Your task to perform on an android device: Search for usb-c to usb-a on target, select the first entry, and add it to the cart. Image 0: 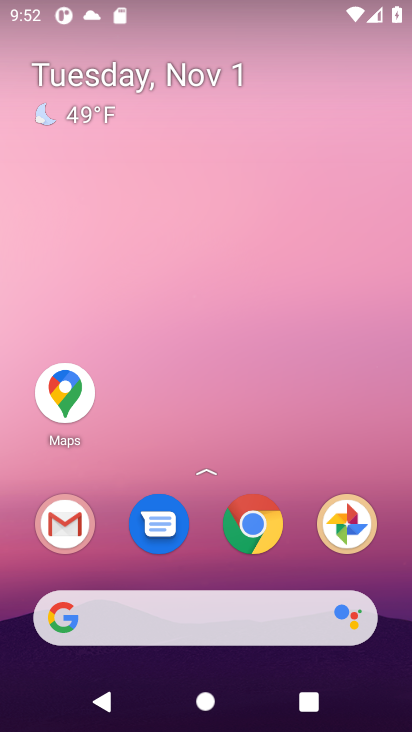
Step 0: press home button
Your task to perform on an android device: Search for usb-c to usb-a on target, select the first entry, and add it to the cart. Image 1: 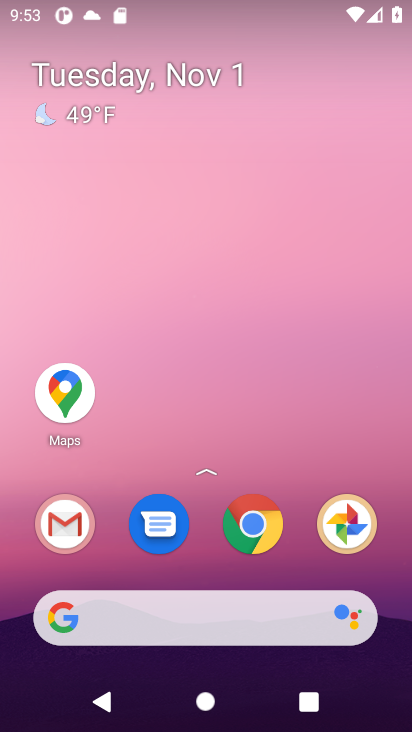
Step 1: click (82, 616)
Your task to perform on an android device: Search for usb-c to usb-a on target, select the first entry, and add it to the cart. Image 2: 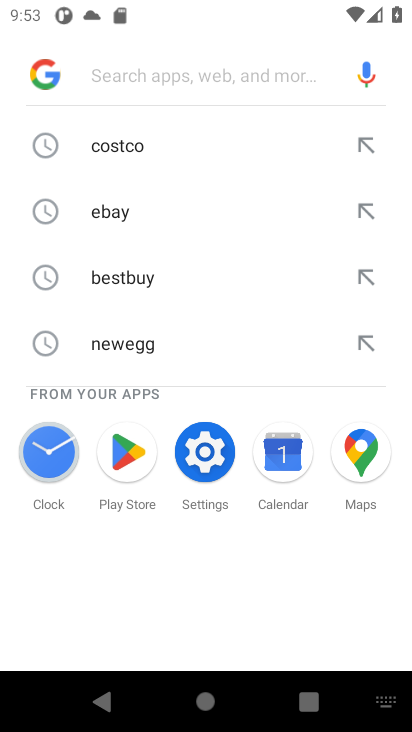
Step 2: type "target"
Your task to perform on an android device: Search for usb-c to usb-a on target, select the first entry, and add it to the cart. Image 3: 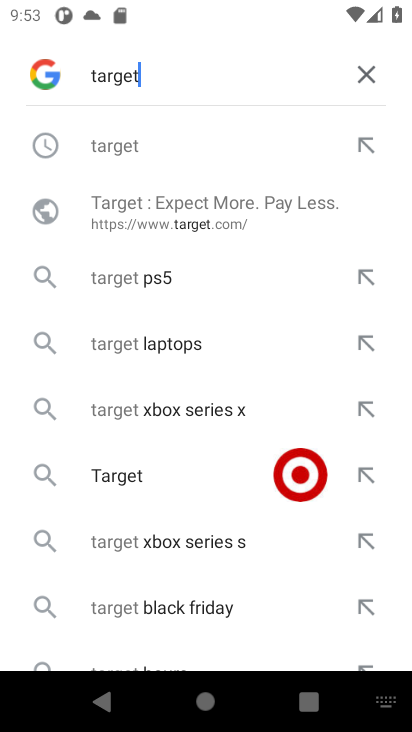
Step 3: press enter
Your task to perform on an android device: Search for usb-c to usb-a on target, select the first entry, and add it to the cart. Image 4: 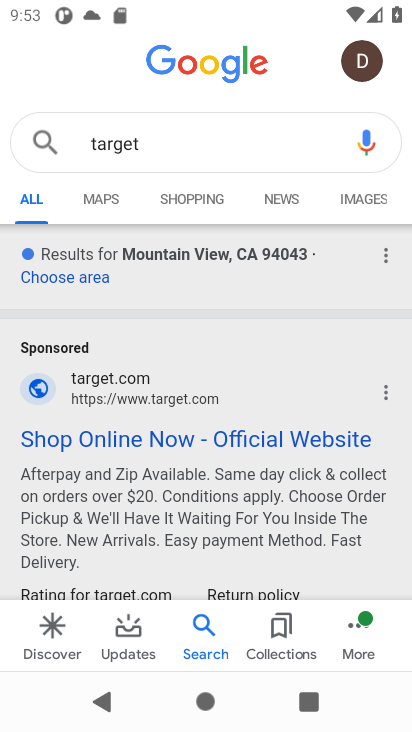
Step 4: click (106, 443)
Your task to perform on an android device: Search for usb-c to usb-a on target, select the first entry, and add it to the cart. Image 5: 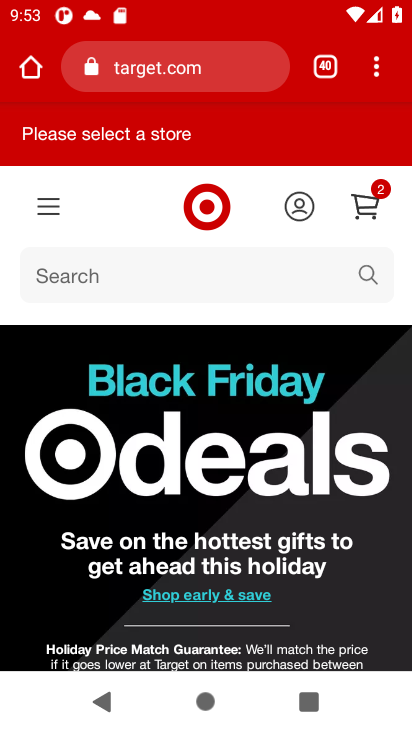
Step 5: click (121, 266)
Your task to perform on an android device: Search for usb-c to usb-a on target, select the first entry, and add it to the cart. Image 6: 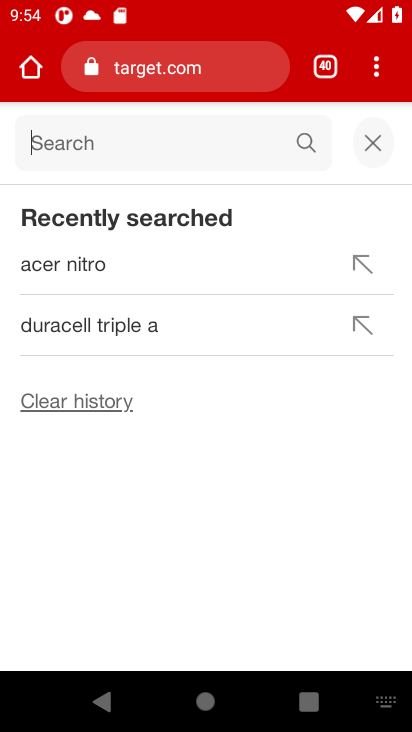
Step 6: type "usb-c to usb-a "
Your task to perform on an android device: Search for usb-c to usb-a on target, select the first entry, and add it to the cart. Image 7: 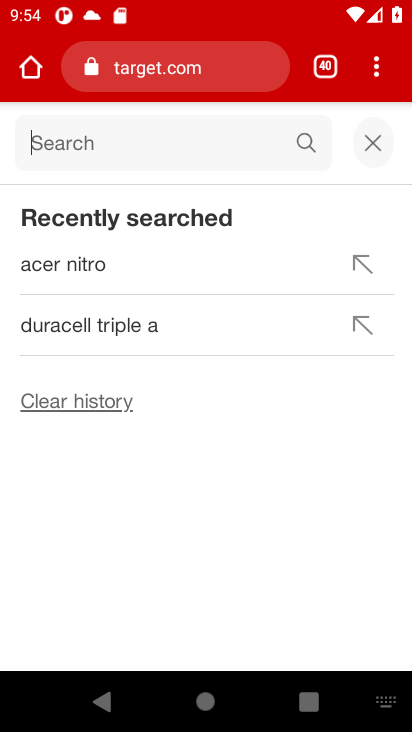
Step 7: press enter
Your task to perform on an android device: Search for usb-c to usb-a on target, select the first entry, and add it to the cart. Image 8: 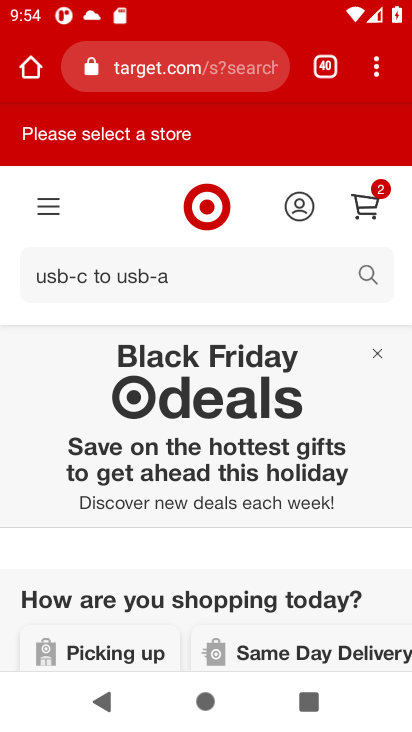
Step 8: drag from (236, 538) to (233, 328)
Your task to perform on an android device: Search for usb-c to usb-a on target, select the first entry, and add it to the cart. Image 9: 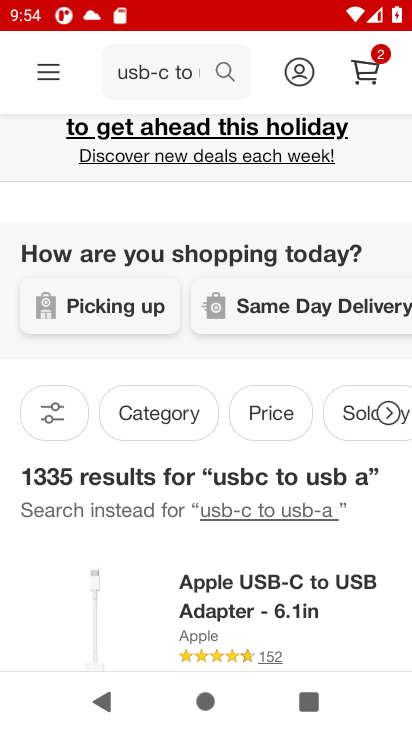
Step 9: drag from (202, 525) to (202, 302)
Your task to perform on an android device: Search for usb-c to usb-a on target, select the first entry, and add it to the cart. Image 10: 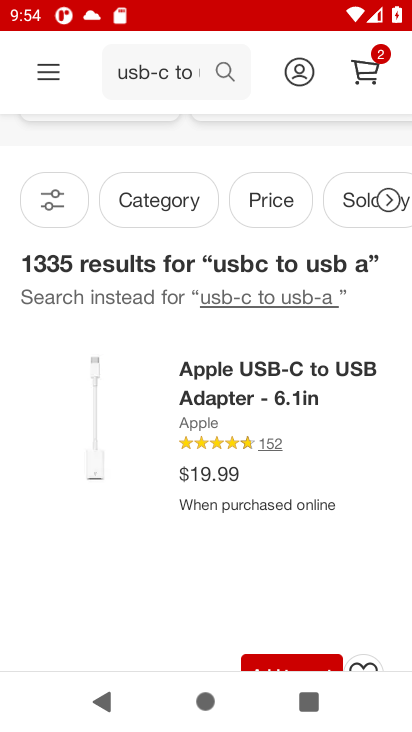
Step 10: drag from (204, 581) to (221, 303)
Your task to perform on an android device: Search for usb-c to usb-a on target, select the first entry, and add it to the cart. Image 11: 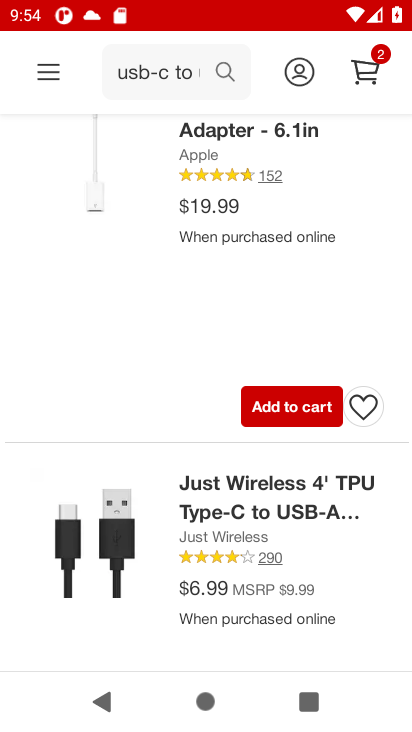
Step 11: drag from (188, 509) to (187, 269)
Your task to perform on an android device: Search for usb-c to usb-a on target, select the first entry, and add it to the cart. Image 12: 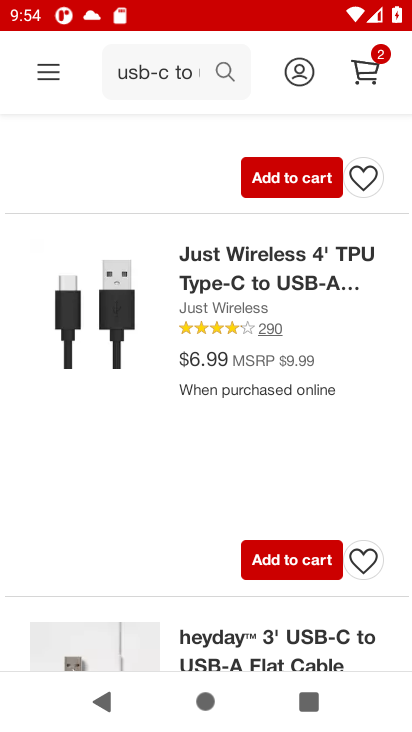
Step 12: drag from (152, 523) to (152, 308)
Your task to perform on an android device: Search for usb-c to usb-a on target, select the first entry, and add it to the cart. Image 13: 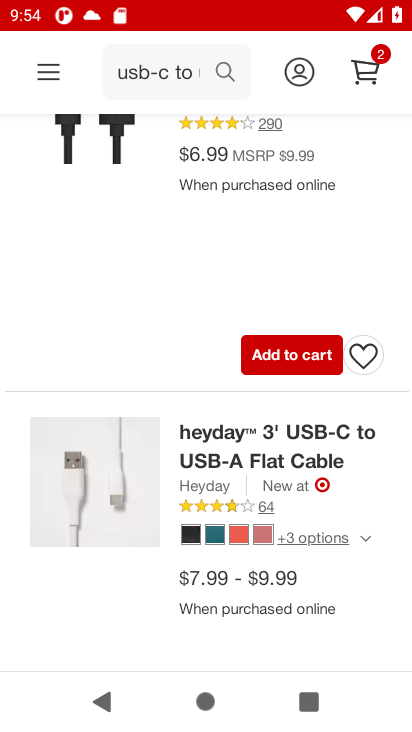
Step 13: drag from (148, 458) to (155, 244)
Your task to perform on an android device: Search for usb-c to usb-a on target, select the first entry, and add it to the cart. Image 14: 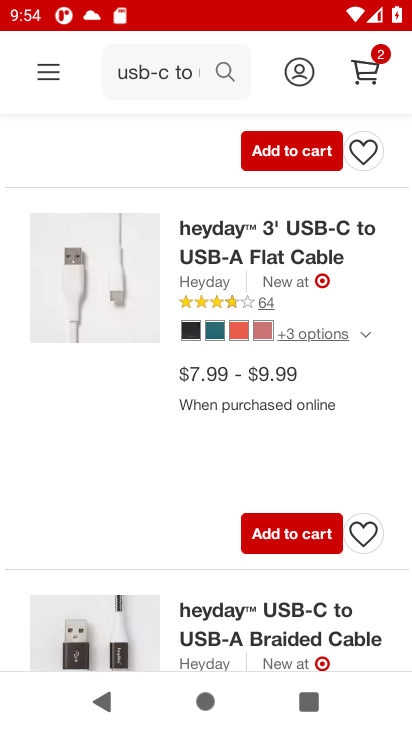
Step 14: click (296, 537)
Your task to perform on an android device: Search for usb-c to usb-a on target, select the first entry, and add it to the cart. Image 15: 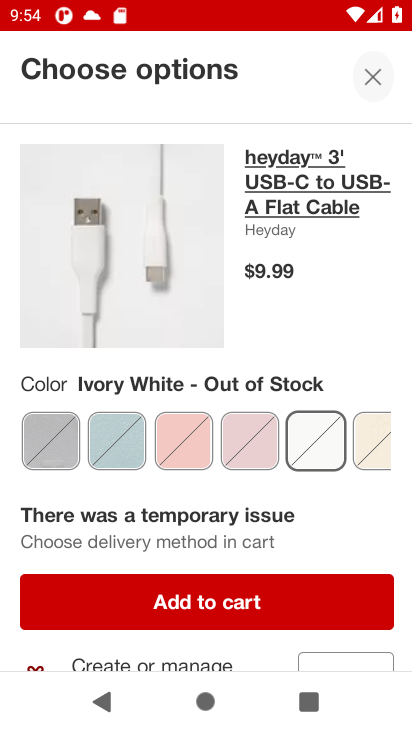
Step 15: click (184, 603)
Your task to perform on an android device: Search for usb-c to usb-a on target, select the first entry, and add it to the cart. Image 16: 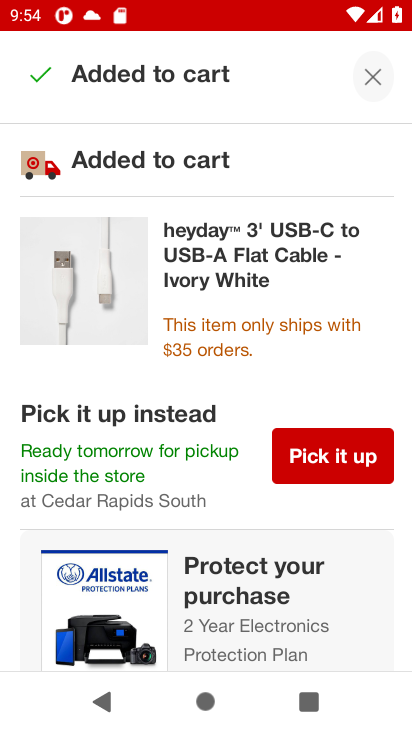
Step 16: task complete